Your task to perform on an android device: turn pop-ups on in chrome Image 0: 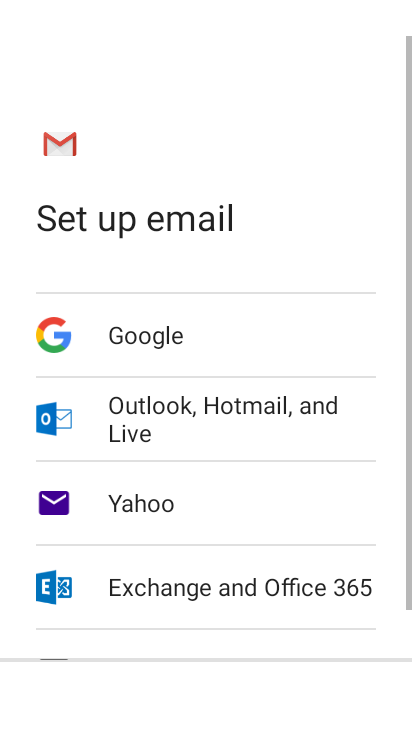
Step 0: press home button
Your task to perform on an android device: turn pop-ups on in chrome Image 1: 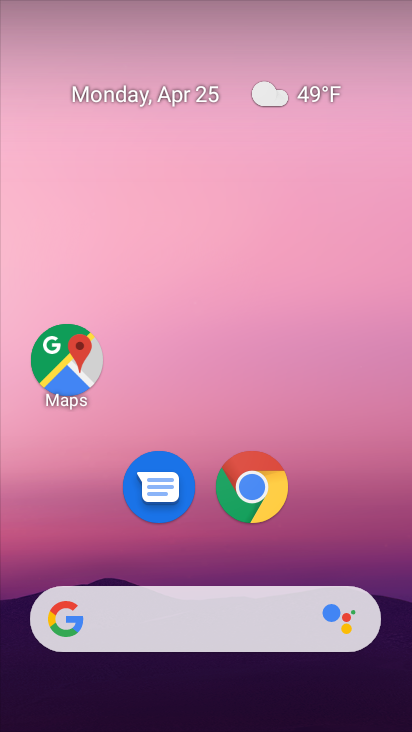
Step 1: click (258, 494)
Your task to perform on an android device: turn pop-ups on in chrome Image 2: 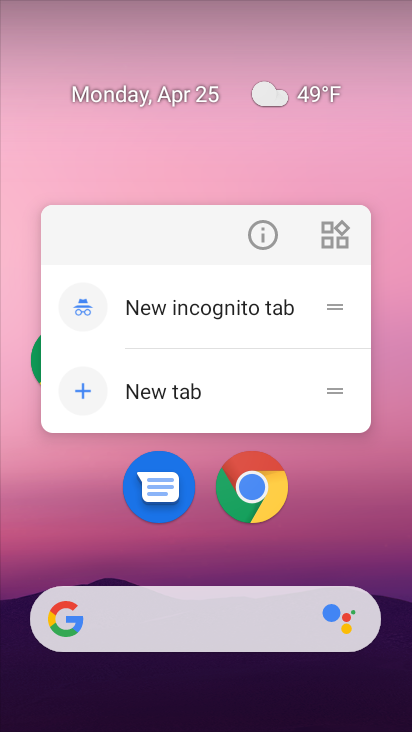
Step 2: click (256, 500)
Your task to perform on an android device: turn pop-ups on in chrome Image 3: 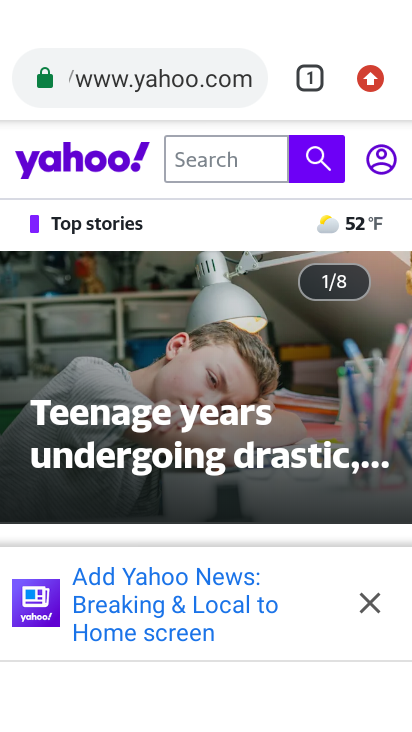
Step 3: drag from (370, 81) to (114, 542)
Your task to perform on an android device: turn pop-ups on in chrome Image 4: 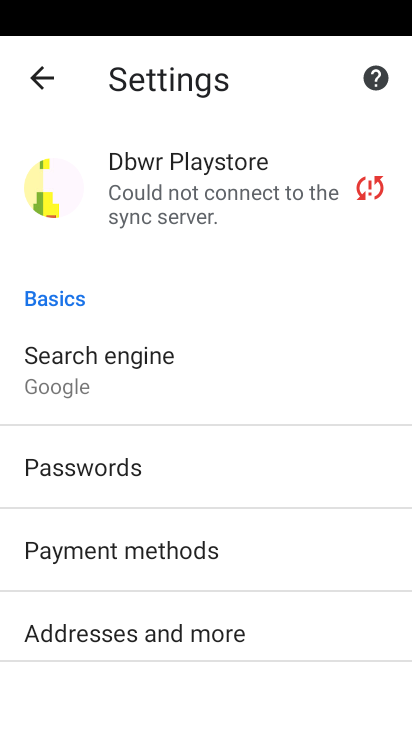
Step 4: drag from (310, 582) to (340, 235)
Your task to perform on an android device: turn pop-ups on in chrome Image 5: 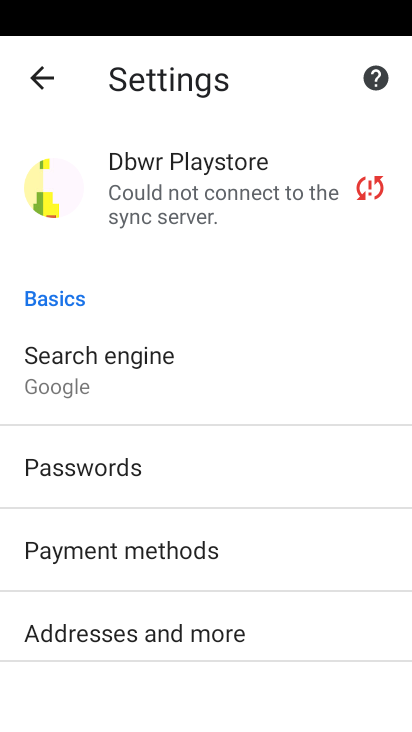
Step 5: drag from (290, 607) to (294, 265)
Your task to perform on an android device: turn pop-ups on in chrome Image 6: 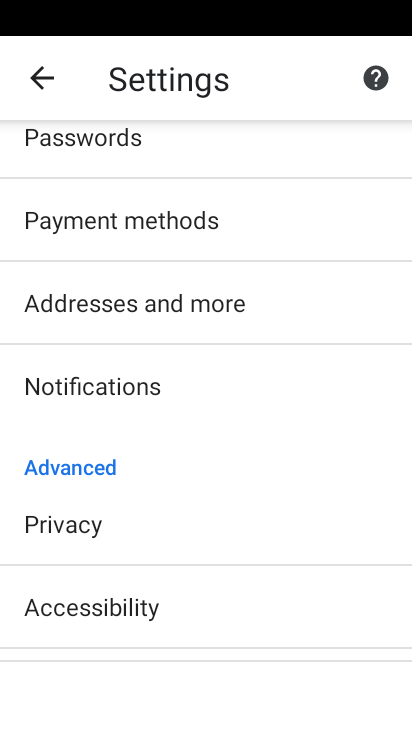
Step 6: drag from (243, 566) to (252, 215)
Your task to perform on an android device: turn pop-ups on in chrome Image 7: 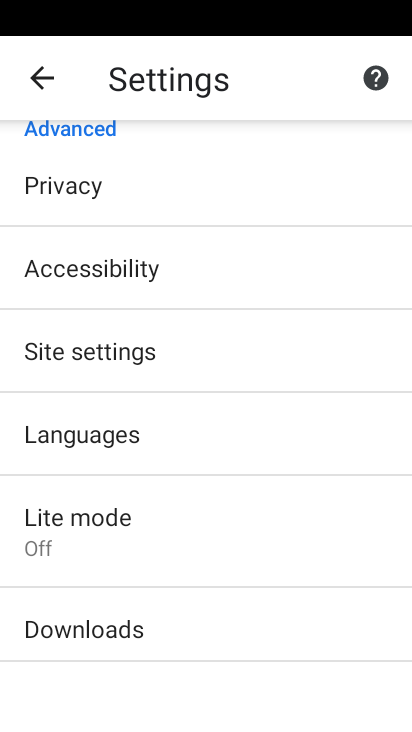
Step 7: click (60, 355)
Your task to perform on an android device: turn pop-ups on in chrome Image 8: 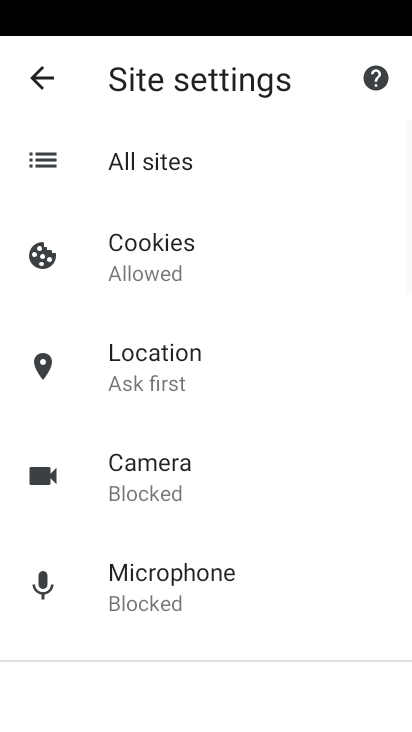
Step 8: drag from (268, 575) to (279, 393)
Your task to perform on an android device: turn pop-ups on in chrome Image 9: 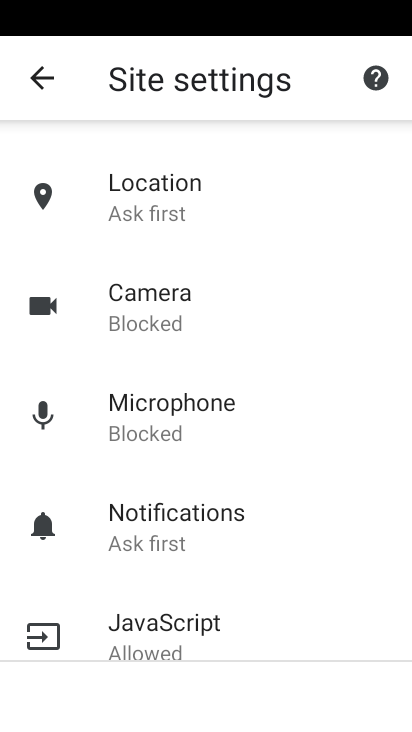
Step 9: drag from (290, 559) to (294, 310)
Your task to perform on an android device: turn pop-ups on in chrome Image 10: 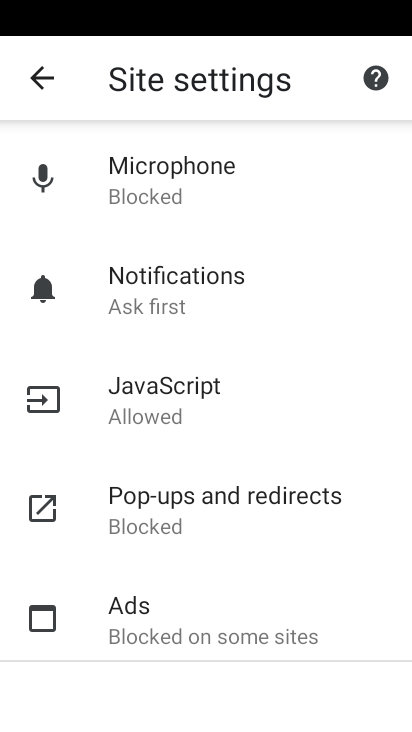
Step 10: click (140, 510)
Your task to perform on an android device: turn pop-ups on in chrome Image 11: 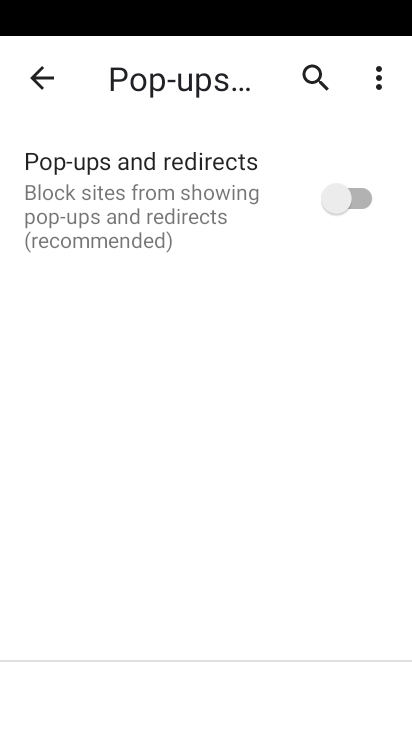
Step 11: click (323, 200)
Your task to perform on an android device: turn pop-ups on in chrome Image 12: 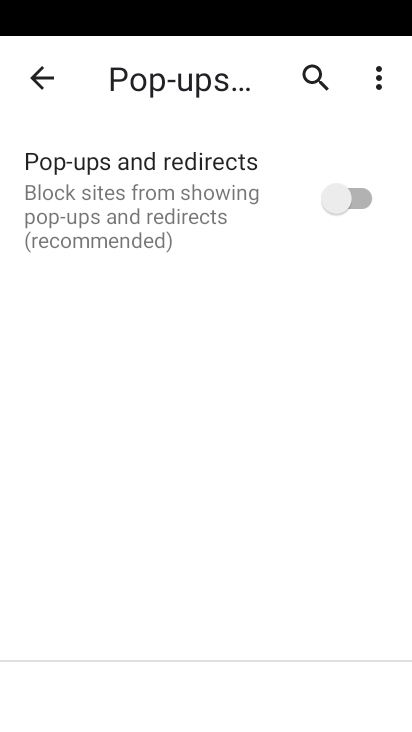
Step 12: click (327, 199)
Your task to perform on an android device: turn pop-ups on in chrome Image 13: 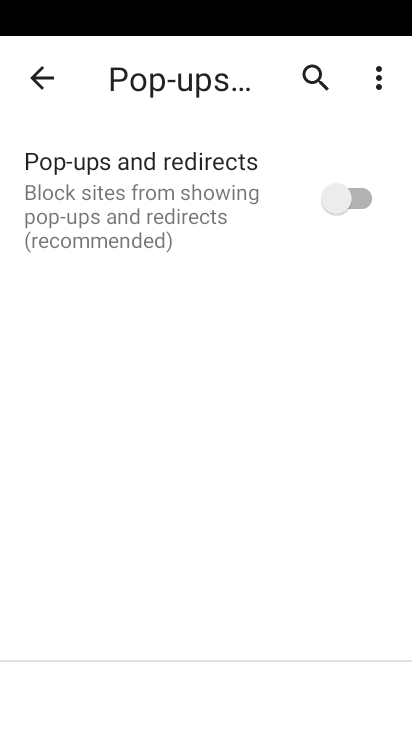
Step 13: click (336, 194)
Your task to perform on an android device: turn pop-ups on in chrome Image 14: 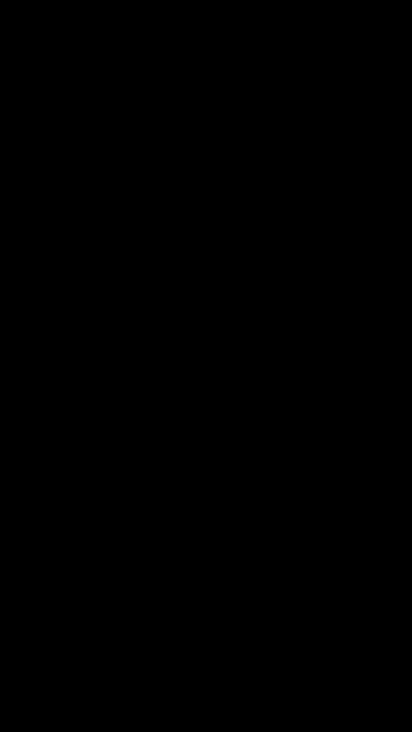
Step 14: task complete